Your task to perform on an android device: toggle airplane mode Image 0: 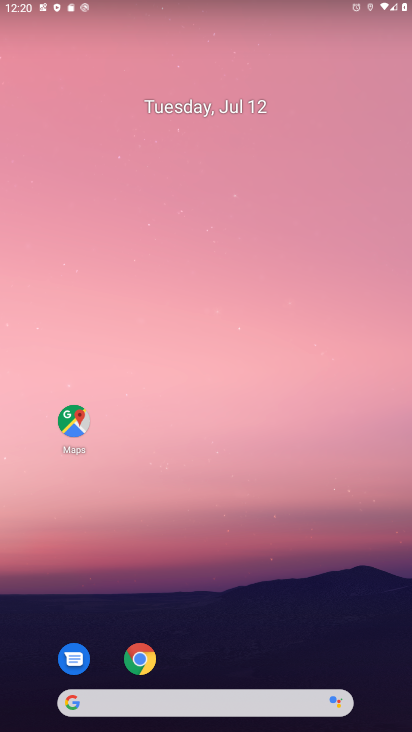
Step 0: click (217, 113)
Your task to perform on an android device: toggle airplane mode Image 1: 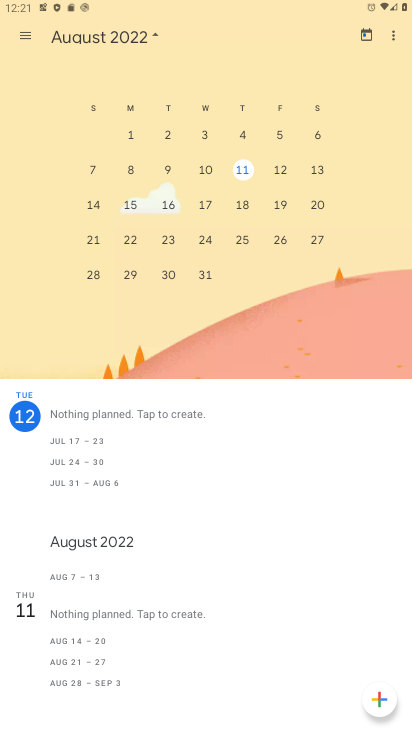
Step 1: press home button
Your task to perform on an android device: toggle airplane mode Image 2: 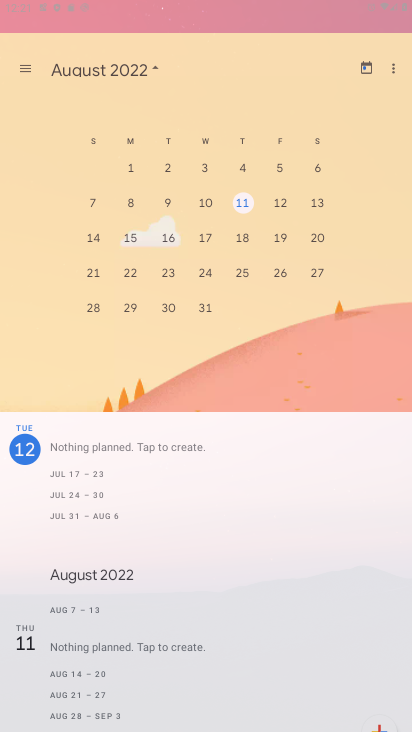
Step 2: drag from (230, 665) to (259, 5)
Your task to perform on an android device: toggle airplane mode Image 3: 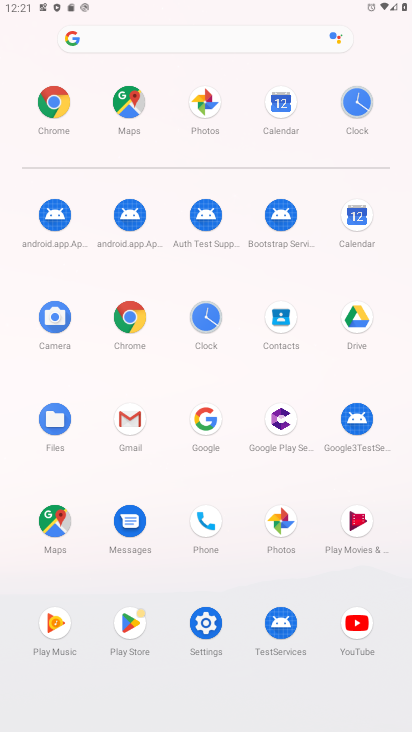
Step 3: click (198, 624)
Your task to perform on an android device: toggle airplane mode Image 4: 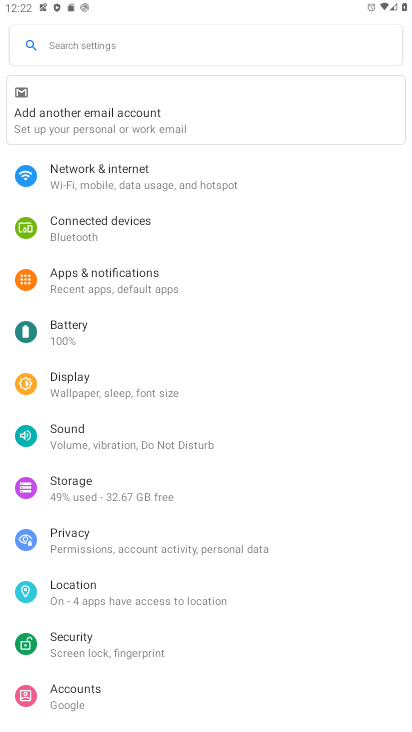
Step 4: click (130, 182)
Your task to perform on an android device: toggle airplane mode Image 5: 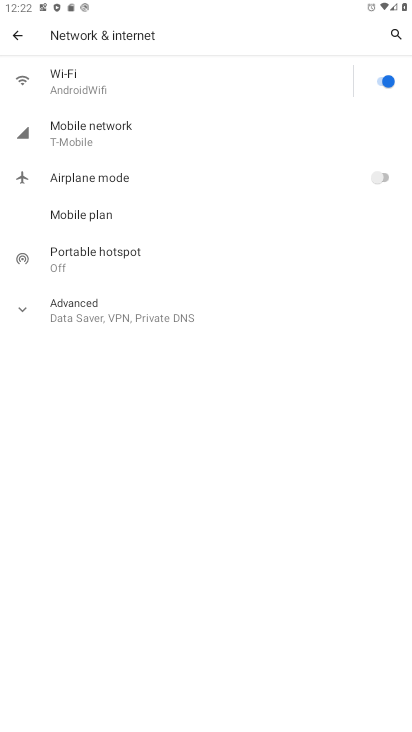
Step 5: click (291, 185)
Your task to perform on an android device: toggle airplane mode Image 6: 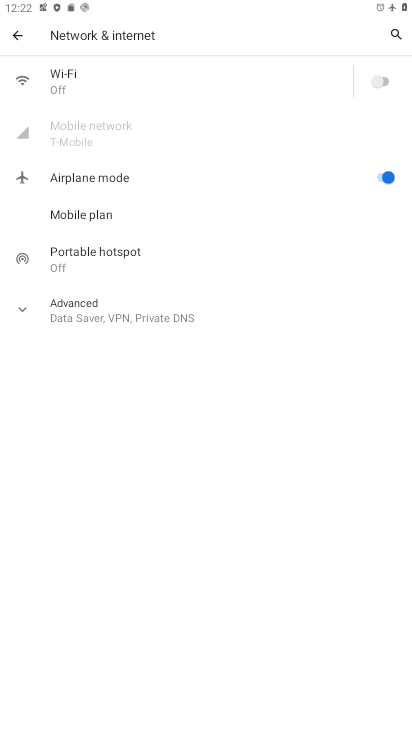
Step 6: task complete